Your task to perform on an android device: check android version Image 0: 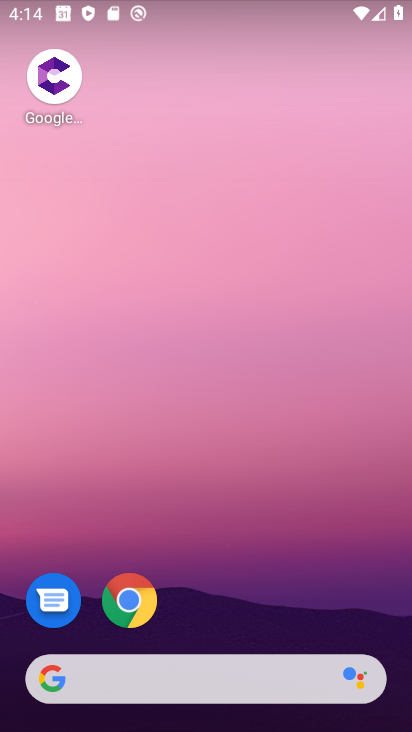
Step 0: drag from (213, 657) to (262, 45)
Your task to perform on an android device: check android version Image 1: 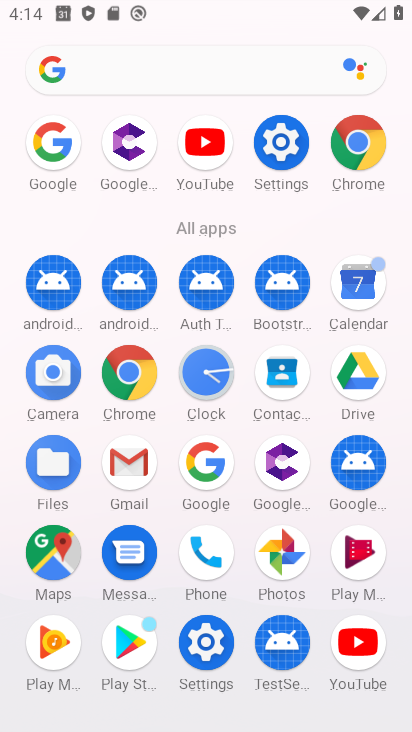
Step 1: click (214, 636)
Your task to perform on an android device: check android version Image 2: 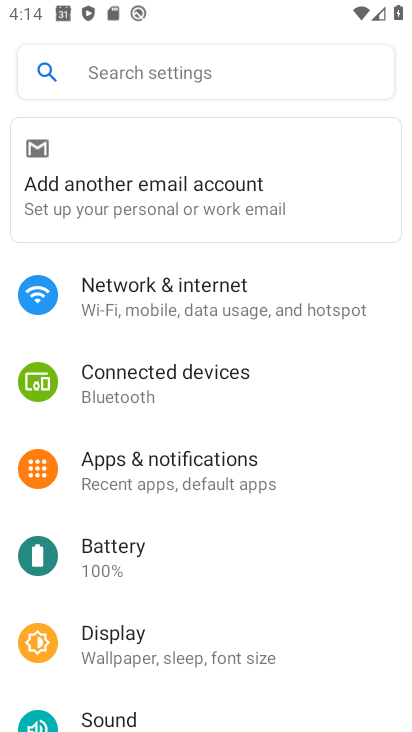
Step 2: drag from (167, 534) to (187, 209)
Your task to perform on an android device: check android version Image 3: 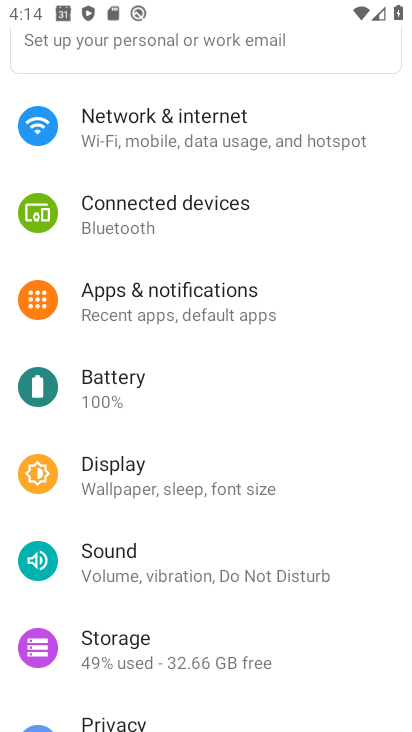
Step 3: drag from (184, 715) to (227, 248)
Your task to perform on an android device: check android version Image 4: 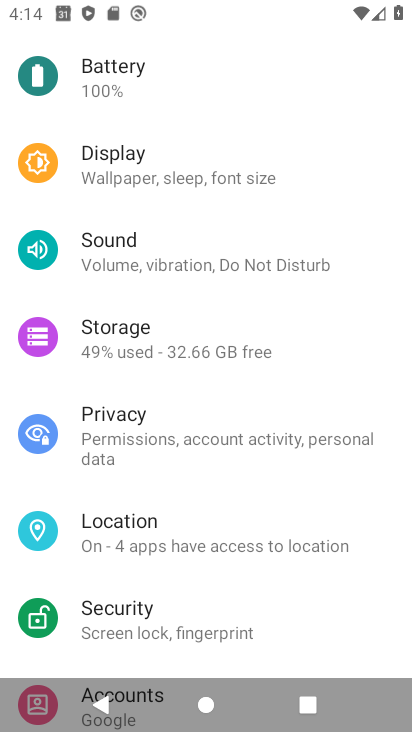
Step 4: drag from (152, 652) to (158, 344)
Your task to perform on an android device: check android version Image 5: 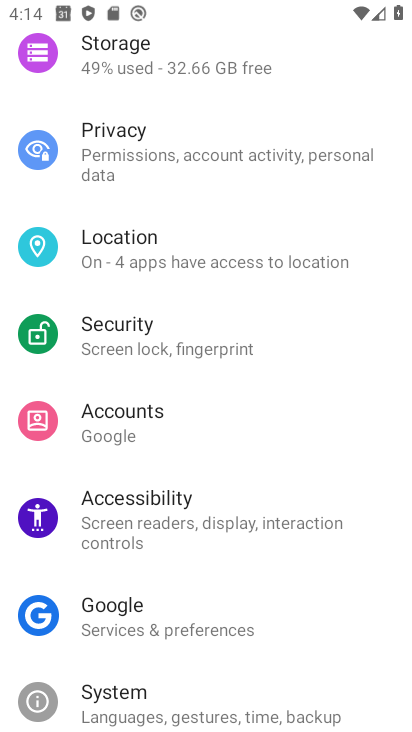
Step 5: drag from (138, 684) to (152, 275)
Your task to perform on an android device: check android version Image 6: 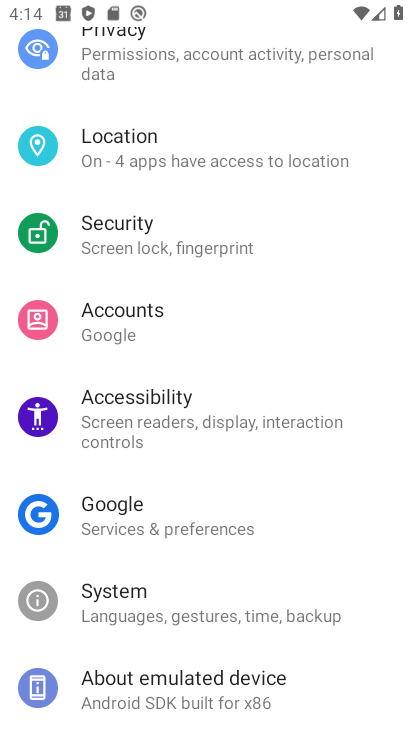
Step 6: click (171, 689)
Your task to perform on an android device: check android version Image 7: 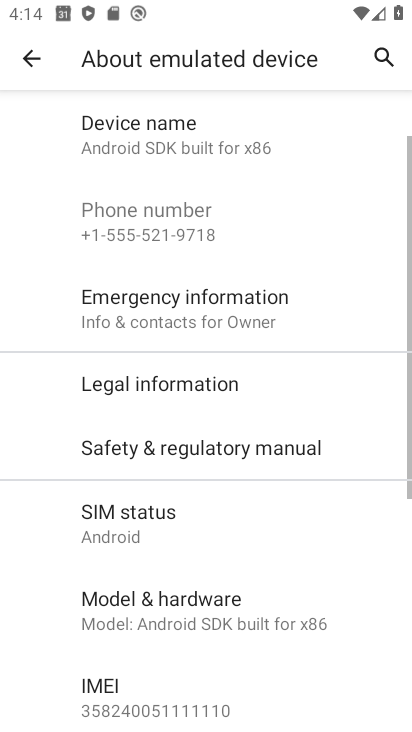
Step 7: task complete